Your task to perform on an android device: turn off javascript in the chrome app Image 0: 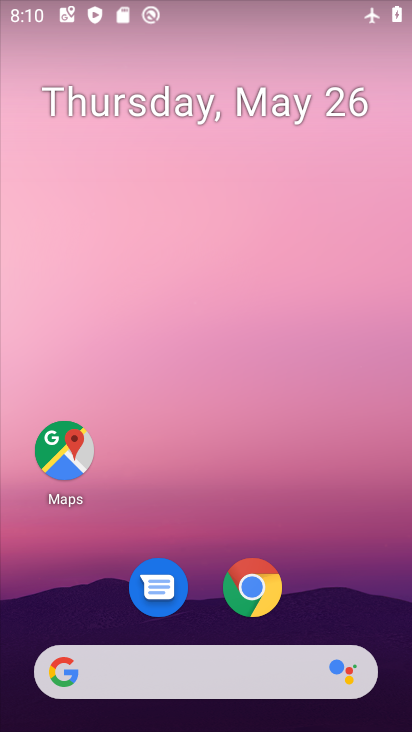
Step 0: click (252, 591)
Your task to perform on an android device: turn off javascript in the chrome app Image 1: 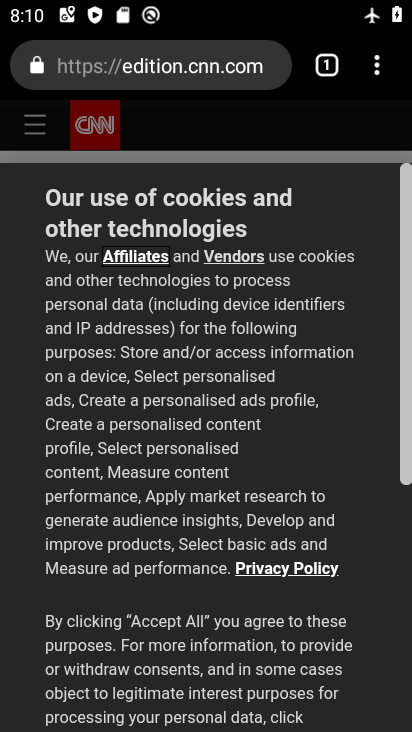
Step 1: drag from (372, 56) to (156, 631)
Your task to perform on an android device: turn off javascript in the chrome app Image 2: 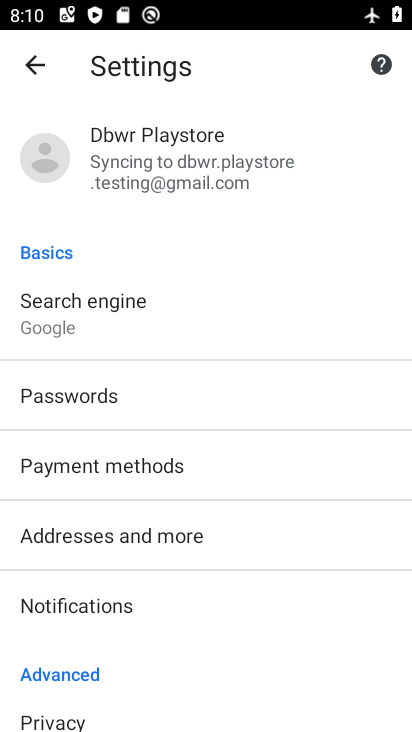
Step 2: drag from (215, 649) to (248, 309)
Your task to perform on an android device: turn off javascript in the chrome app Image 3: 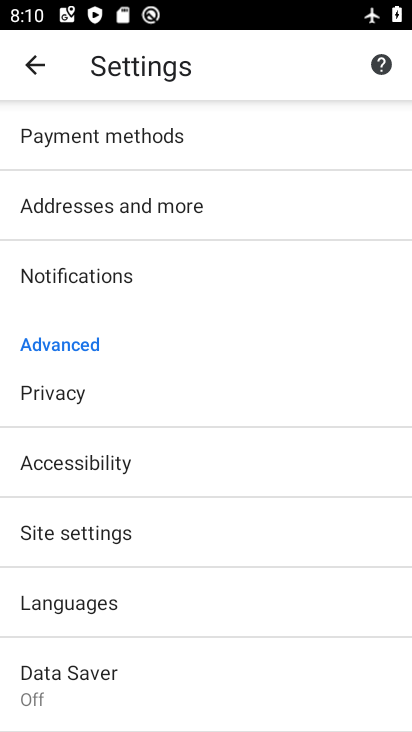
Step 3: click (158, 521)
Your task to perform on an android device: turn off javascript in the chrome app Image 4: 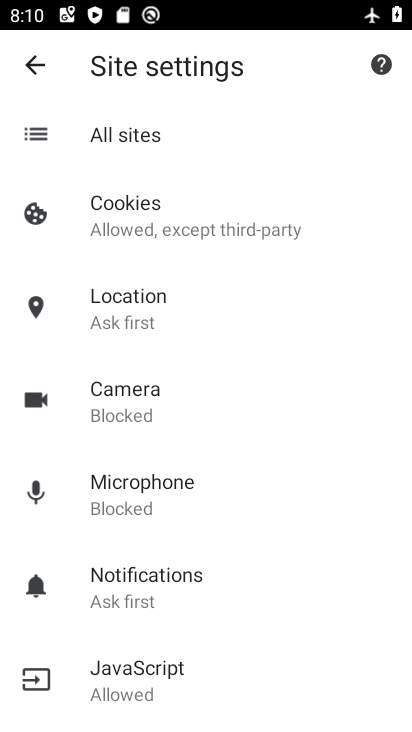
Step 4: drag from (204, 652) to (245, 377)
Your task to perform on an android device: turn off javascript in the chrome app Image 5: 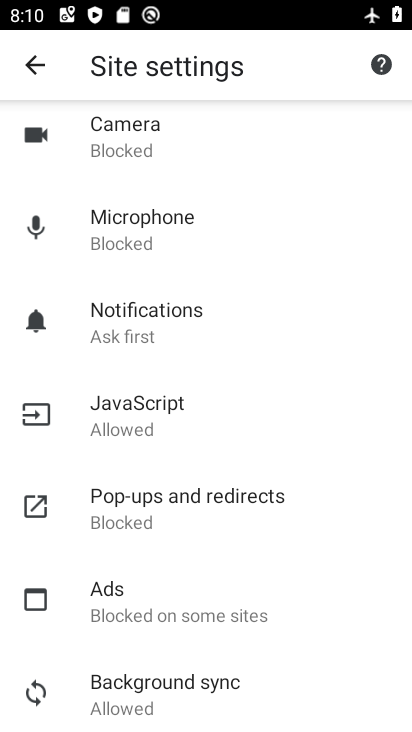
Step 5: click (159, 398)
Your task to perform on an android device: turn off javascript in the chrome app Image 6: 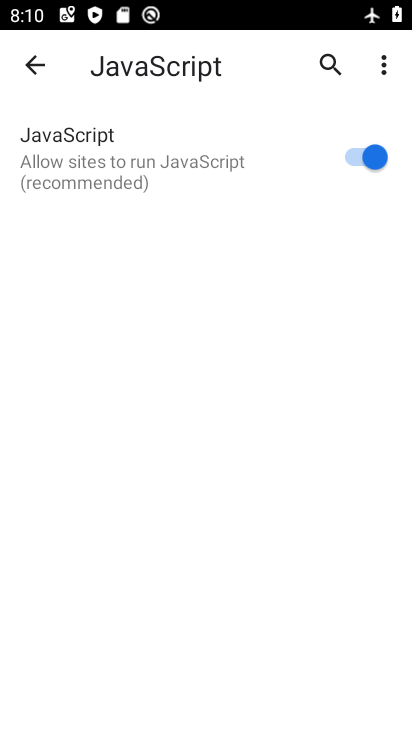
Step 6: click (345, 162)
Your task to perform on an android device: turn off javascript in the chrome app Image 7: 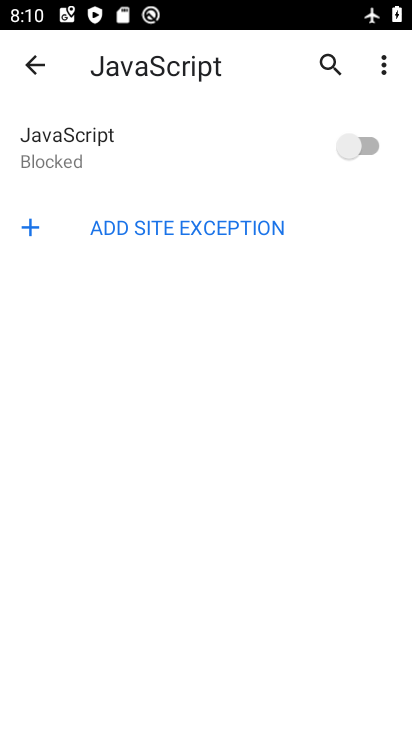
Step 7: task complete